Your task to perform on an android device: change notifications settings Image 0: 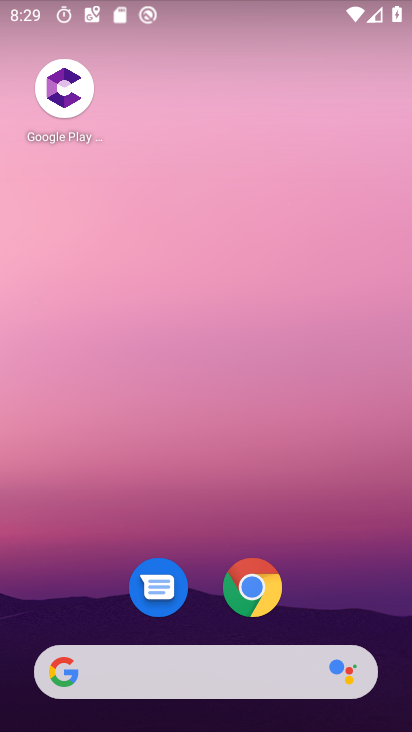
Step 0: drag from (364, 579) to (339, 144)
Your task to perform on an android device: change notifications settings Image 1: 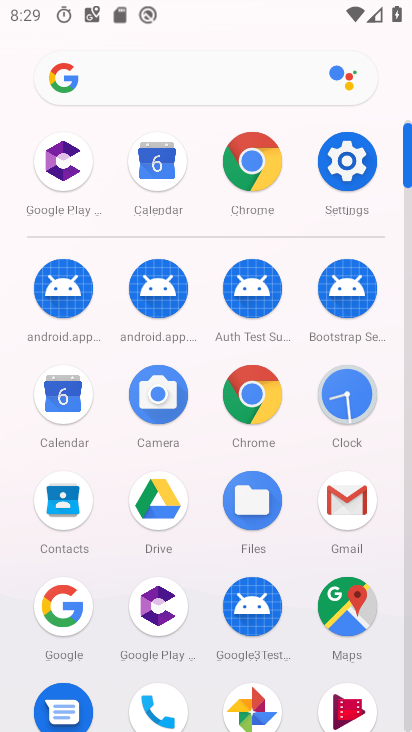
Step 1: click (352, 169)
Your task to perform on an android device: change notifications settings Image 2: 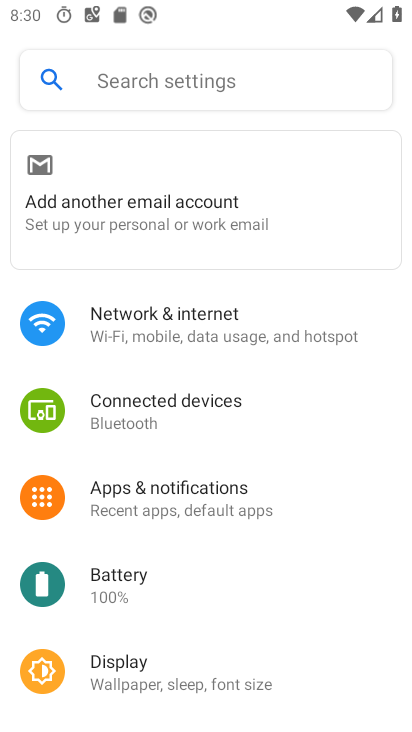
Step 2: click (198, 484)
Your task to perform on an android device: change notifications settings Image 3: 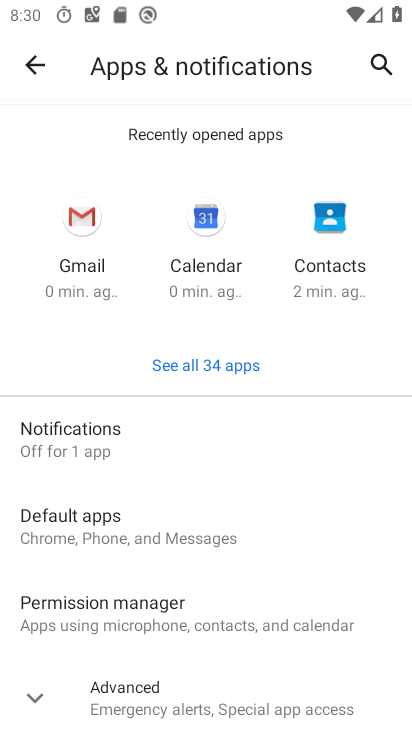
Step 3: click (144, 443)
Your task to perform on an android device: change notifications settings Image 4: 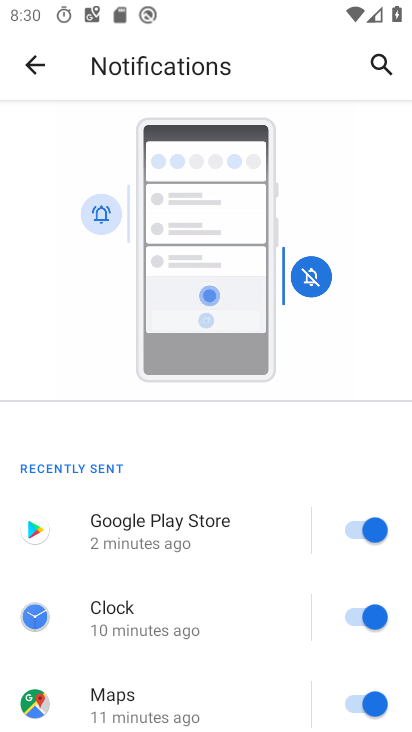
Step 4: drag from (278, 644) to (365, 206)
Your task to perform on an android device: change notifications settings Image 5: 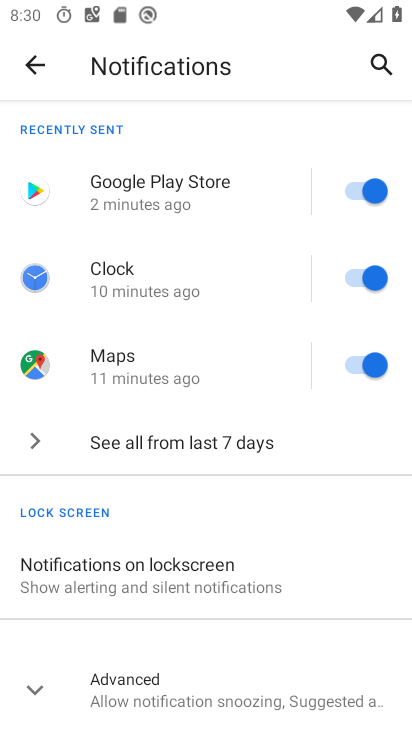
Step 5: click (372, 279)
Your task to perform on an android device: change notifications settings Image 6: 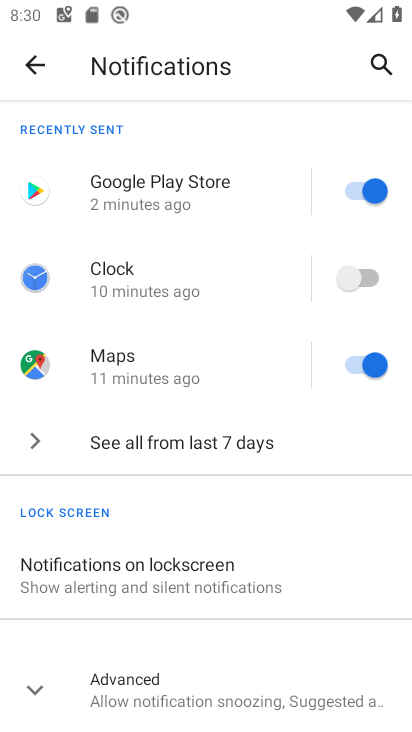
Step 6: task complete